Your task to perform on an android device: check google app version Image 0: 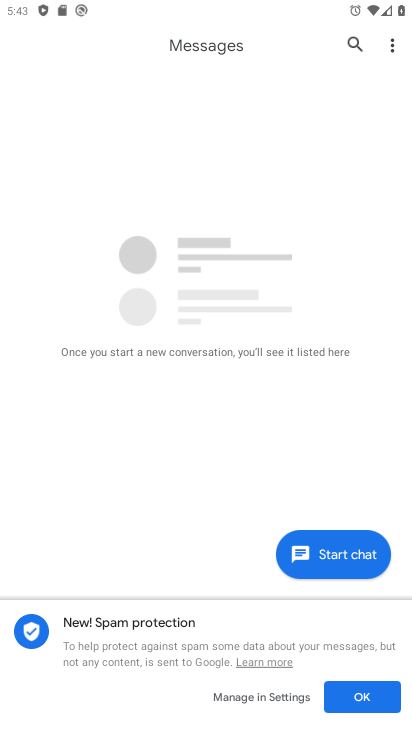
Step 0: press home button
Your task to perform on an android device: check google app version Image 1: 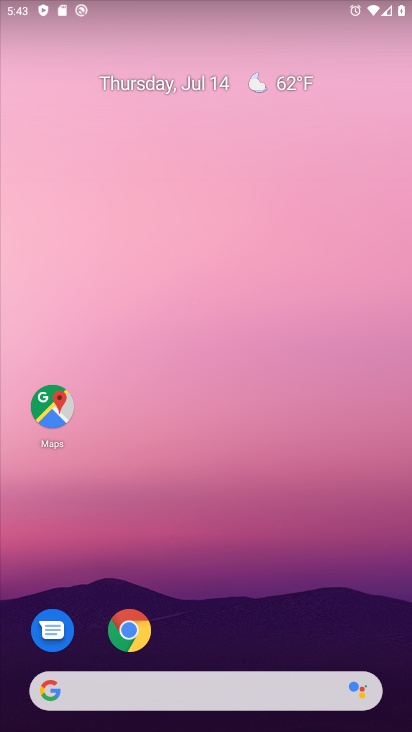
Step 1: click (67, 697)
Your task to perform on an android device: check google app version Image 2: 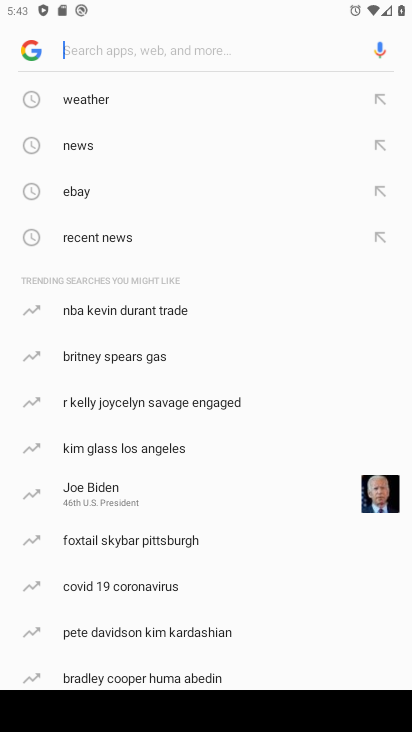
Step 2: click (41, 55)
Your task to perform on an android device: check google app version Image 3: 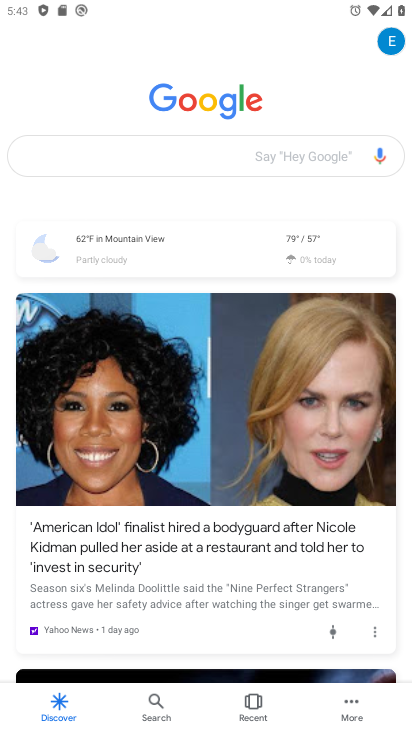
Step 3: click (362, 714)
Your task to perform on an android device: check google app version Image 4: 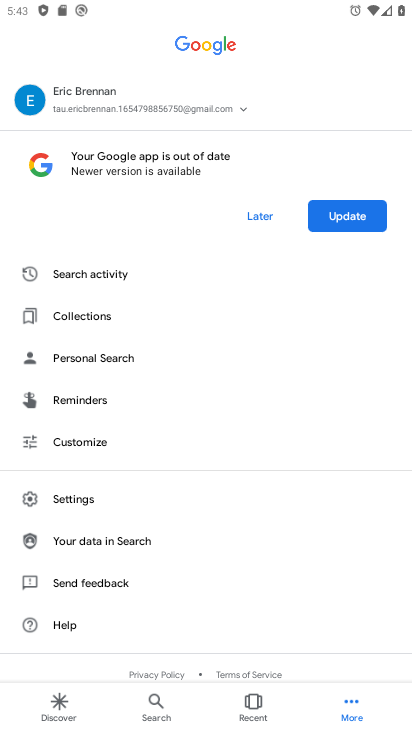
Step 4: drag from (118, 624) to (116, 198)
Your task to perform on an android device: check google app version Image 5: 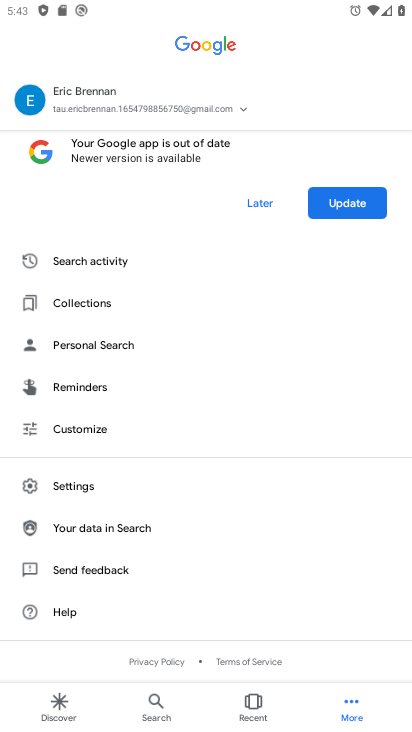
Step 5: click (108, 483)
Your task to perform on an android device: check google app version Image 6: 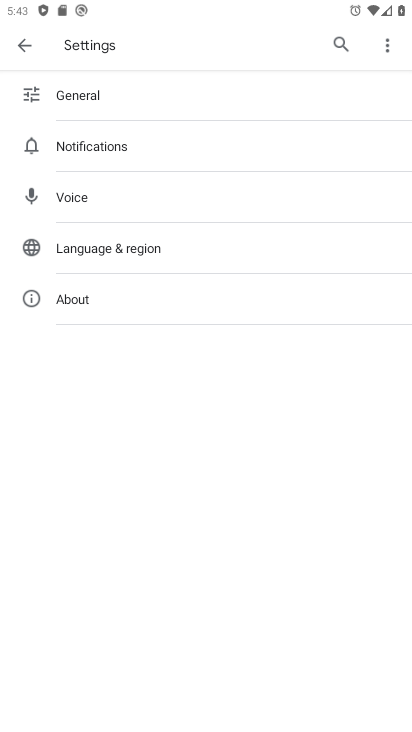
Step 6: click (154, 286)
Your task to perform on an android device: check google app version Image 7: 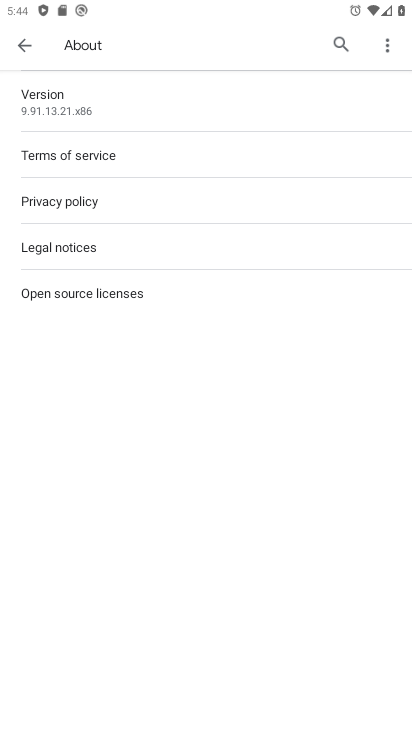
Step 7: task complete